Your task to perform on an android device: turn off translation in the chrome app Image 0: 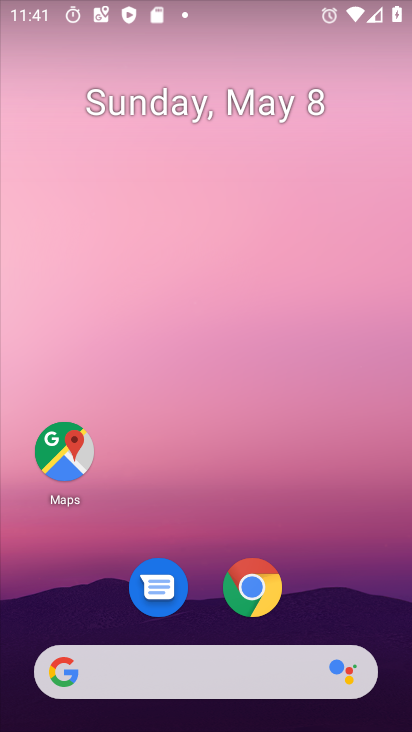
Step 0: drag from (392, 623) to (105, 34)
Your task to perform on an android device: turn off translation in the chrome app Image 1: 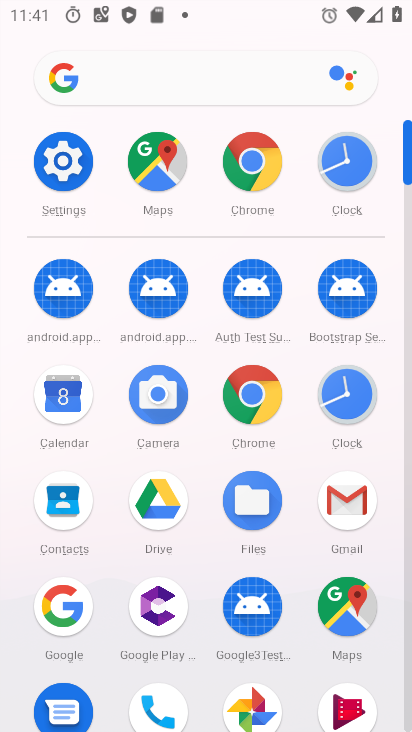
Step 1: click (246, 159)
Your task to perform on an android device: turn off translation in the chrome app Image 2: 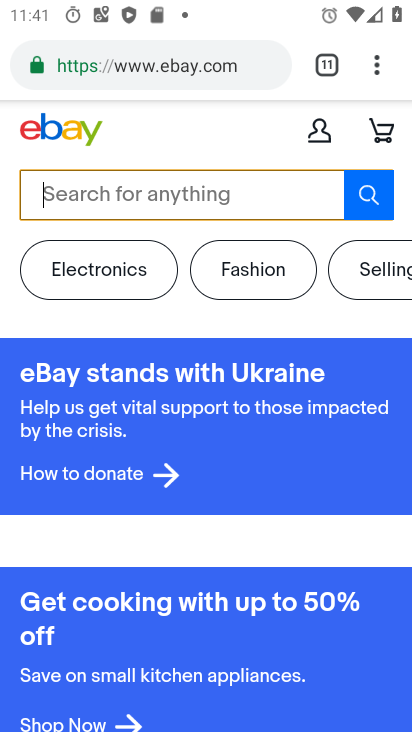
Step 2: drag from (370, 76) to (152, 637)
Your task to perform on an android device: turn off translation in the chrome app Image 3: 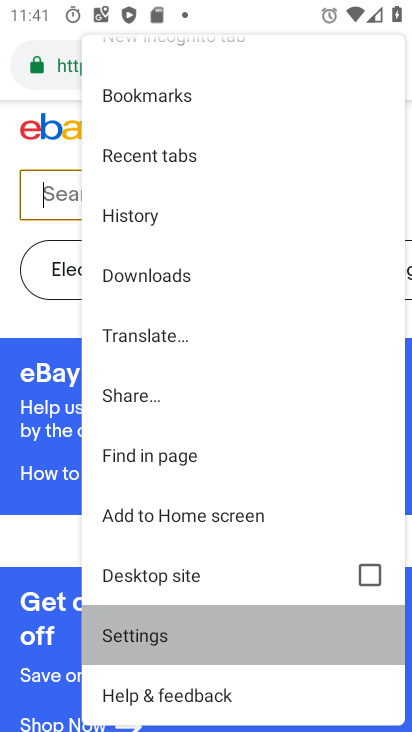
Step 3: click (144, 640)
Your task to perform on an android device: turn off translation in the chrome app Image 4: 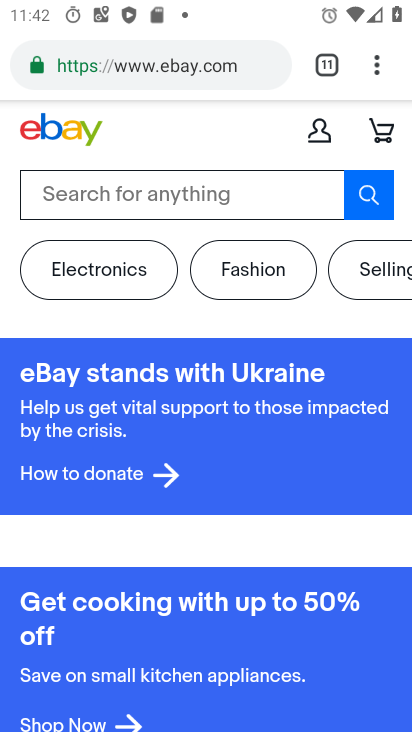
Step 4: click (145, 635)
Your task to perform on an android device: turn off translation in the chrome app Image 5: 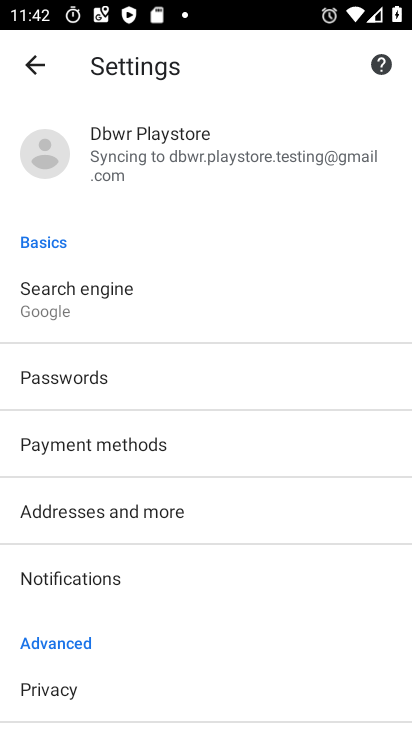
Step 5: drag from (143, 571) to (93, 34)
Your task to perform on an android device: turn off translation in the chrome app Image 6: 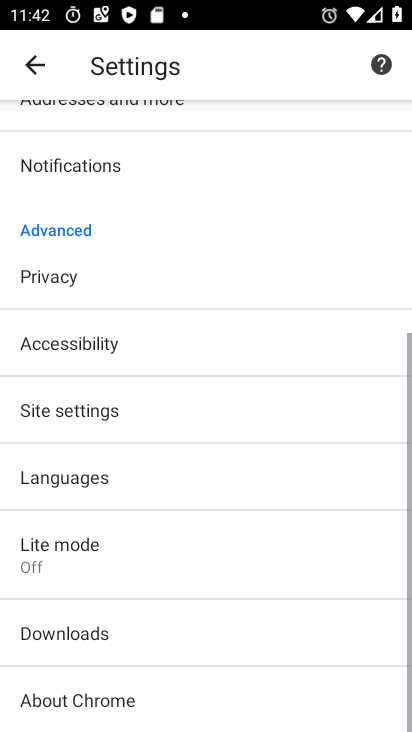
Step 6: drag from (177, 499) to (172, 99)
Your task to perform on an android device: turn off translation in the chrome app Image 7: 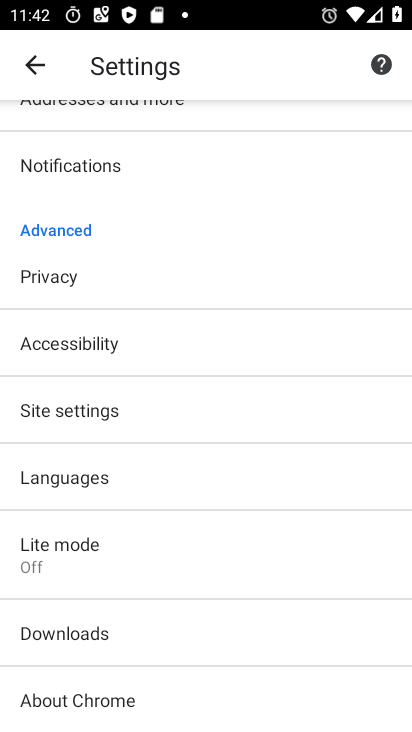
Step 7: click (69, 473)
Your task to perform on an android device: turn off translation in the chrome app Image 8: 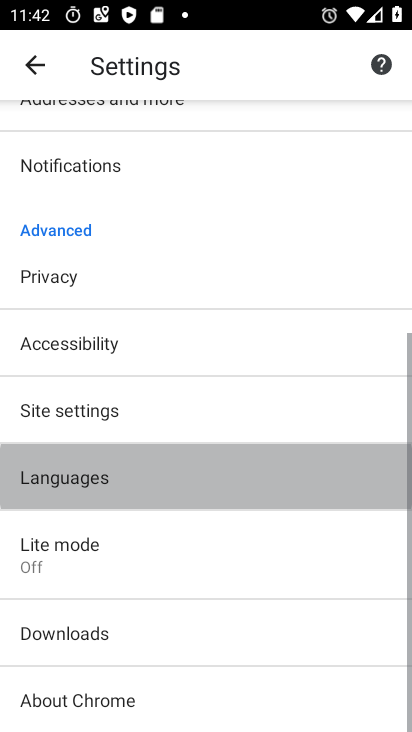
Step 8: click (69, 473)
Your task to perform on an android device: turn off translation in the chrome app Image 9: 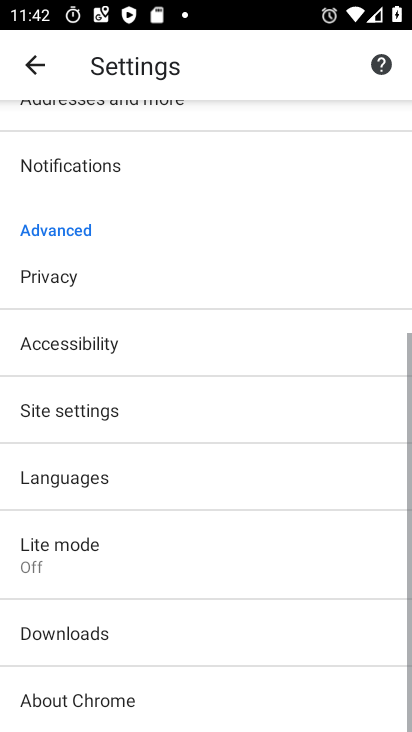
Step 9: click (69, 473)
Your task to perform on an android device: turn off translation in the chrome app Image 10: 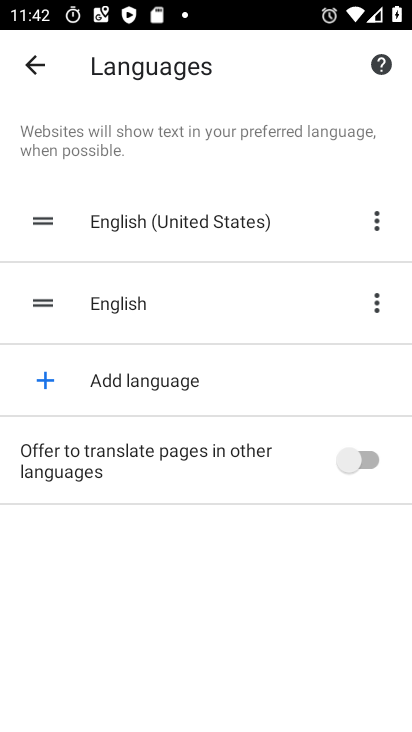
Step 10: task complete